Your task to perform on an android device: Open the web browser Image 0: 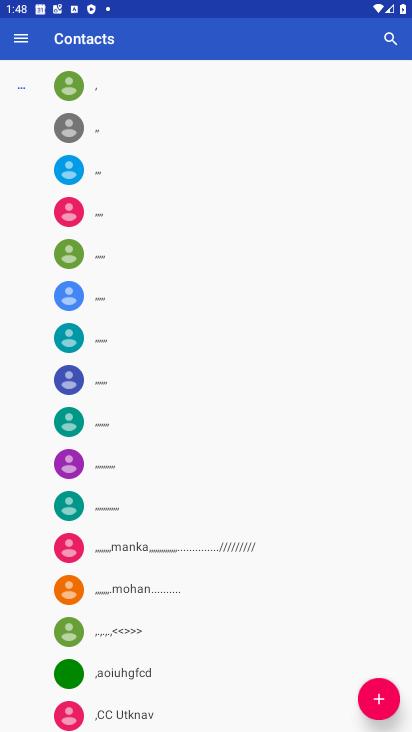
Step 0: press home button
Your task to perform on an android device: Open the web browser Image 1: 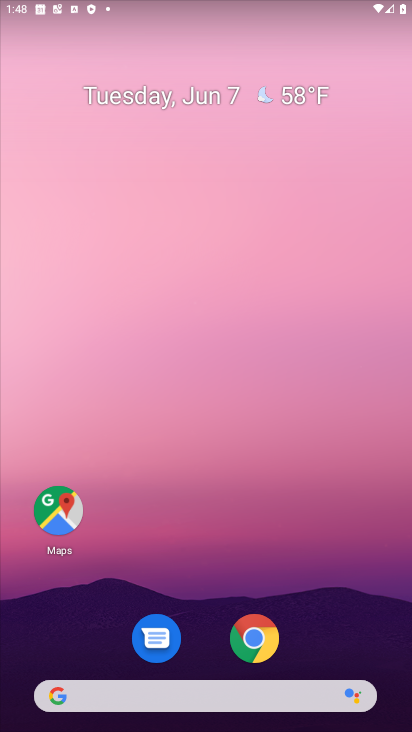
Step 1: drag from (199, 656) to (211, 275)
Your task to perform on an android device: Open the web browser Image 2: 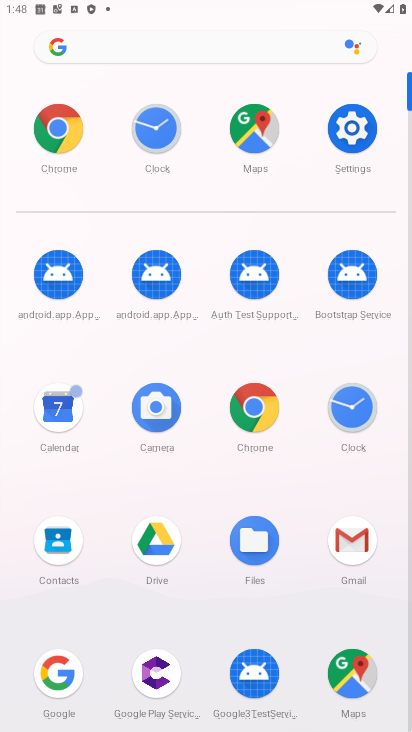
Step 2: click (61, 129)
Your task to perform on an android device: Open the web browser Image 3: 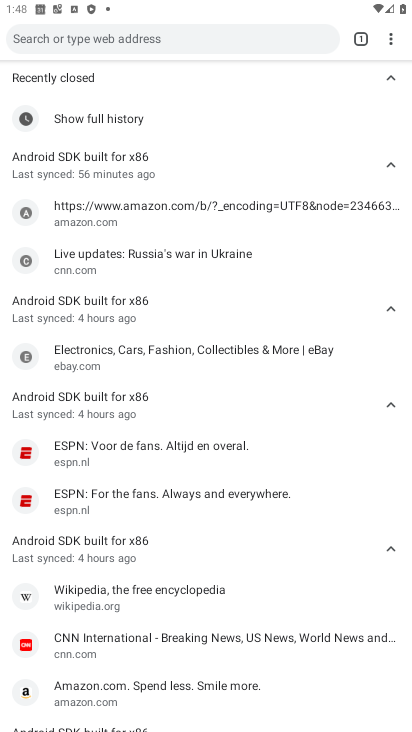
Step 3: click (109, 51)
Your task to perform on an android device: Open the web browser Image 4: 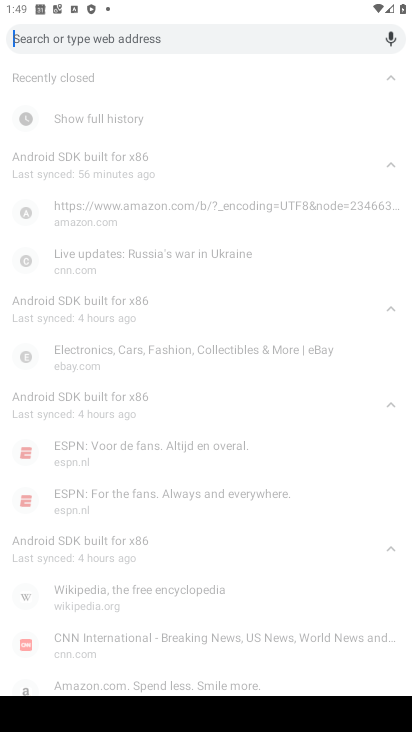
Step 4: task complete